Your task to perform on an android device: open a bookmark in the chrome app Image 0: 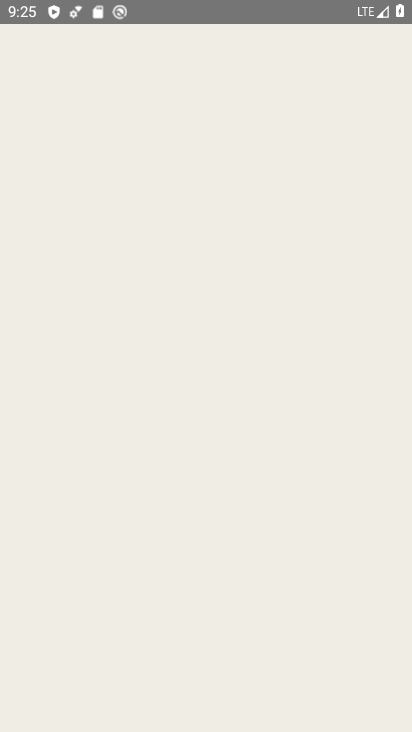
Step 0: click (269, 641)
Your task to perform on an android device: open a bookmark in the chrome app Image 1: 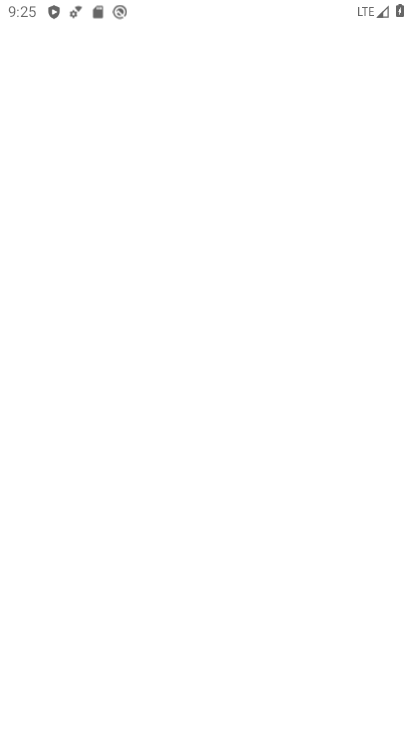
Step 1: drag from (165, 11) to (213, 582)
Your task to perform on an android device: open a bookmark in the chrome app Image 2: 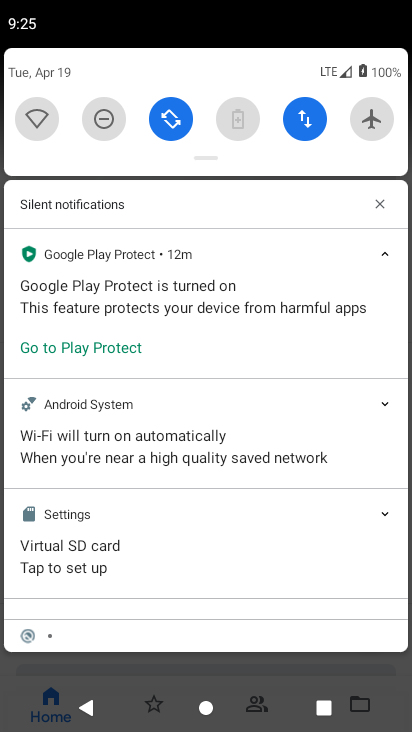
Step 2: drag from (198, 80) to (209, 686)
Your task to perform on an android device: open a bookmark in the chrome app Image 3: 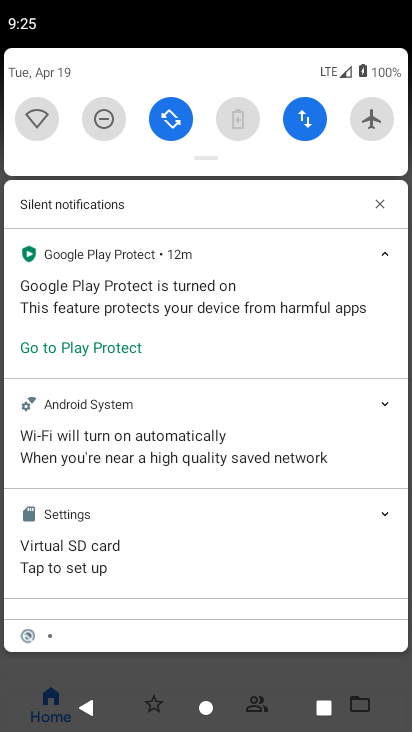
Step 3: drag from (214, 70) to (194, 696)
Your task to perform on an android device: open a bookmark in the chrome app Image 4: 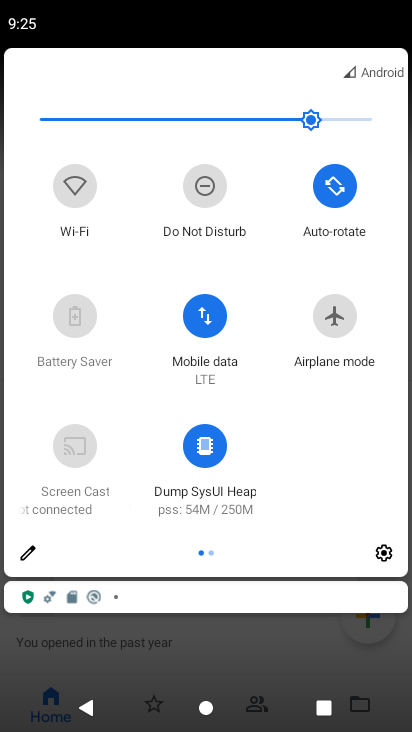
Step 4: click (385, 553)
Your task to perform on an android device: open a bookmark in the chrome app Image 5: 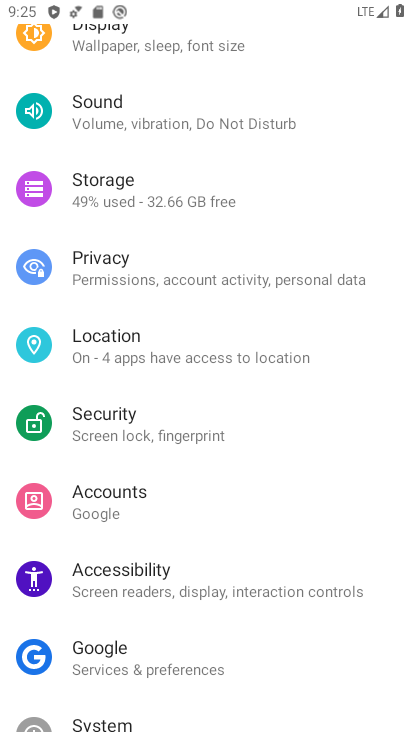
Step 5: press home button
Your task to perform on an android device: open a bookmark in the chrome app Image 6: 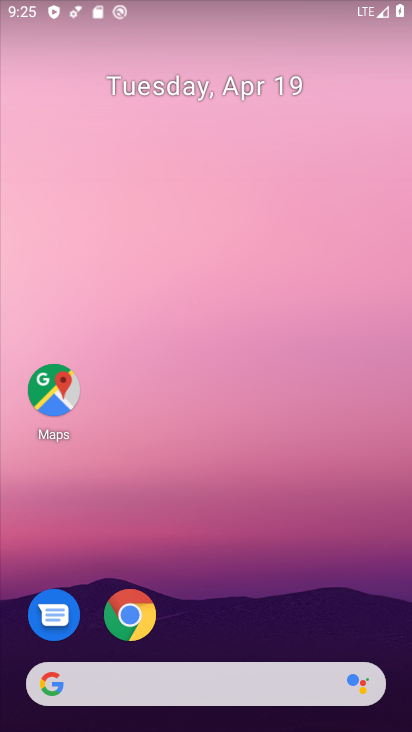
Step 6: click (141, 621)
Your task to perform on an android device: open a bookmark in the chrome app Image 7: 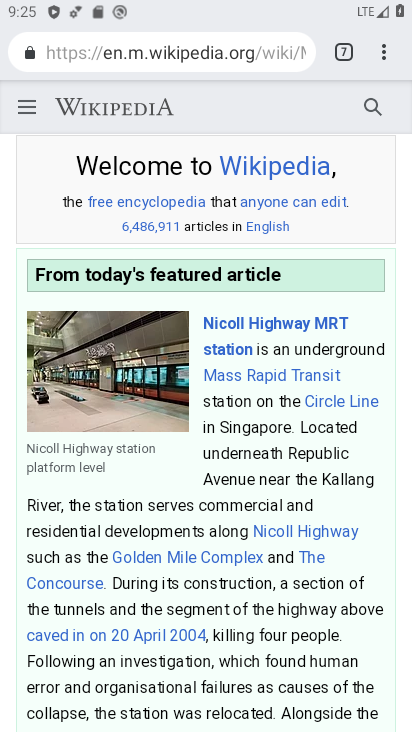
Step 7: click (389, 45)
Your task to perform on an android device: open a bookmark in the chrome app Image 8: 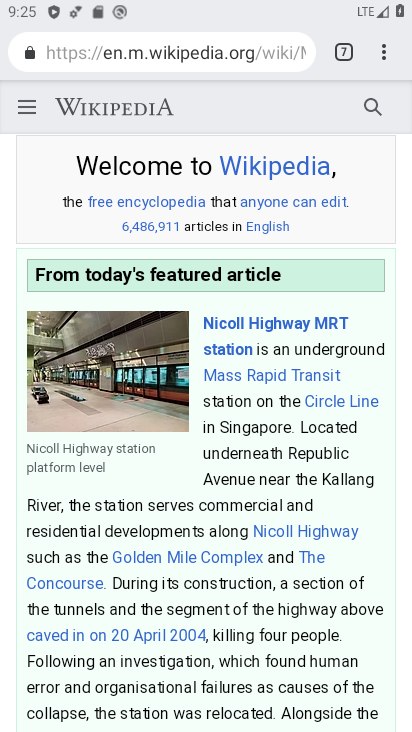
Step 8: click (384, 55)
Your task to perform on an android device: open a bookmark in the chrome app Image 9: 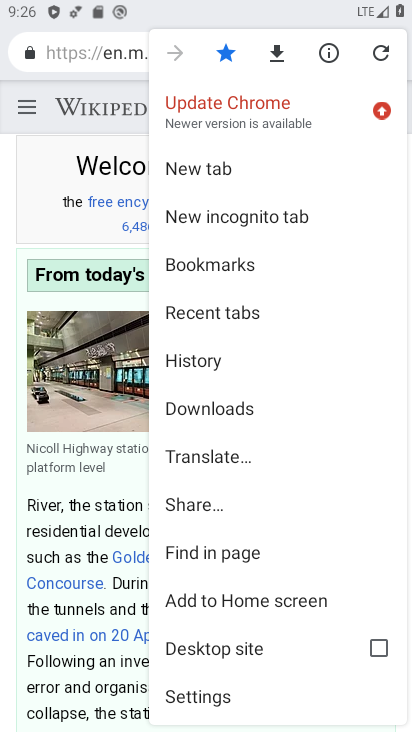
Step 9: click (237, 268)
Your task to perform on an android device: open a bookmark in the chrome app Image 10: 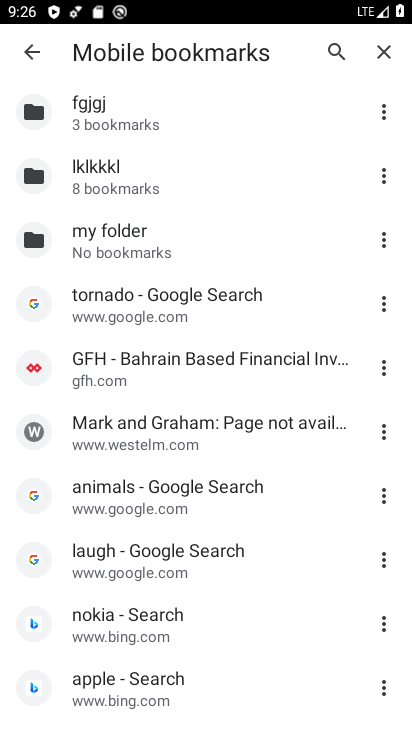
Step 10: click (143, 374)
Your task to perform on an android device: open a bookmark in the chrome app Image 11: 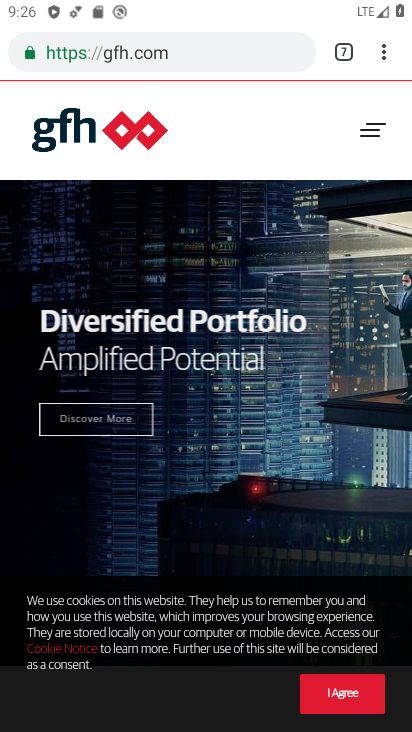
Step 11: task complete